Your task to perform on an android device: turn off data saver in the chrome app Image 0: 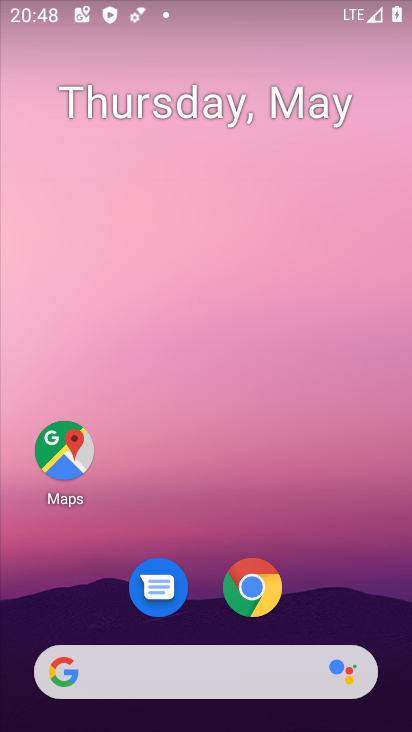
Step 0: click (244, 594)
Your task to perform on an android device: turn off data saver in the chrome app Image 1: 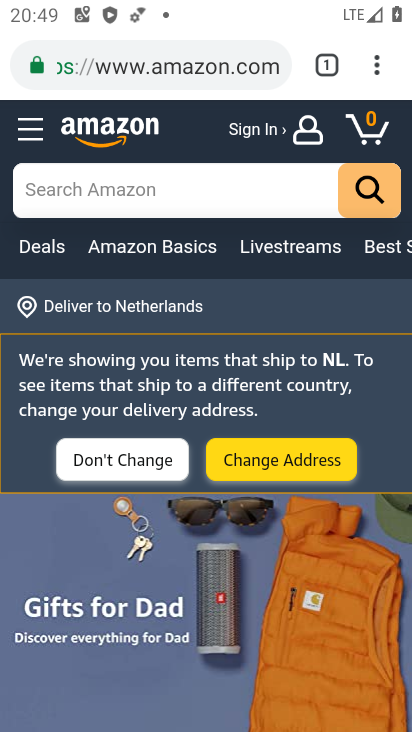
Step 1: click (339, 56)
Your task to perform on an android device: turn off data saver in the chrome app Image 2: 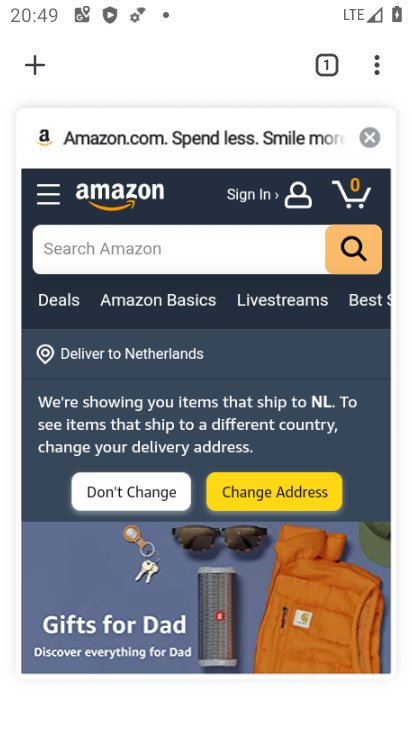
Step 2: click (371, 142)
Your task to perform on an android device: turn off data saver in the chrome app Image 3: 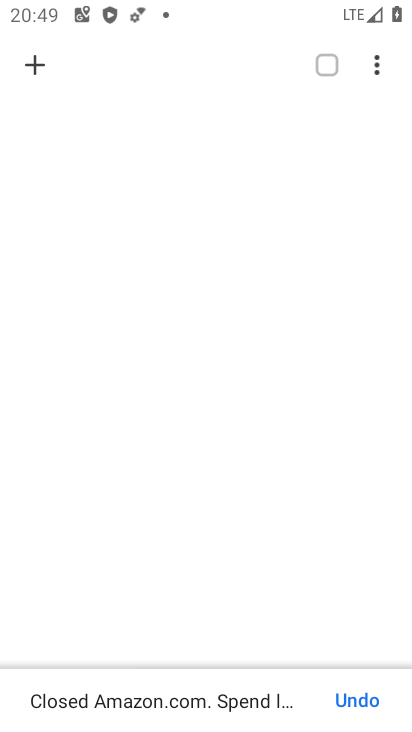
Step 3: click (379, 74)
Your task to perform on an android device: turn off data saver in the chrome app Image 4: 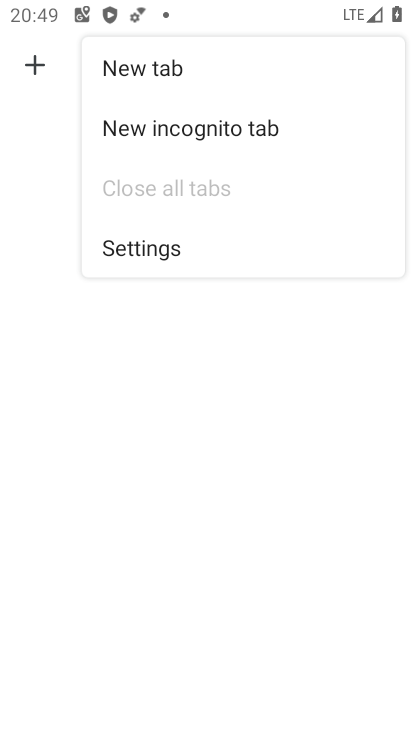
Step 4: click (150, 257)
Your task to perform on an android device: turn off data saver in the chrome app Image 5: 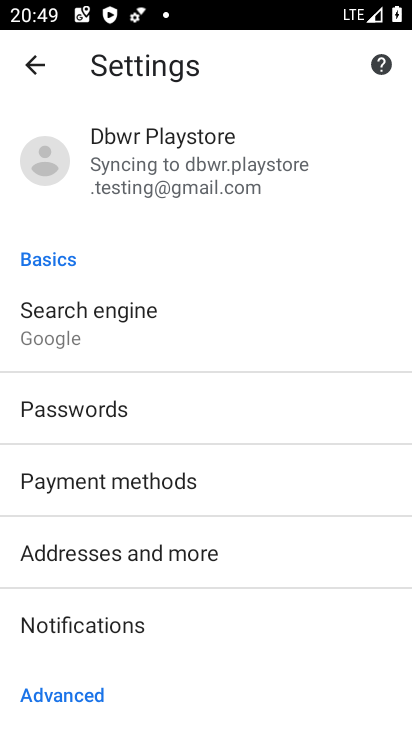
Step 5: drag from (159, 664) to (225, 210)
Your task to perform on an android device: turn off data saver in the chrome app Image 6: 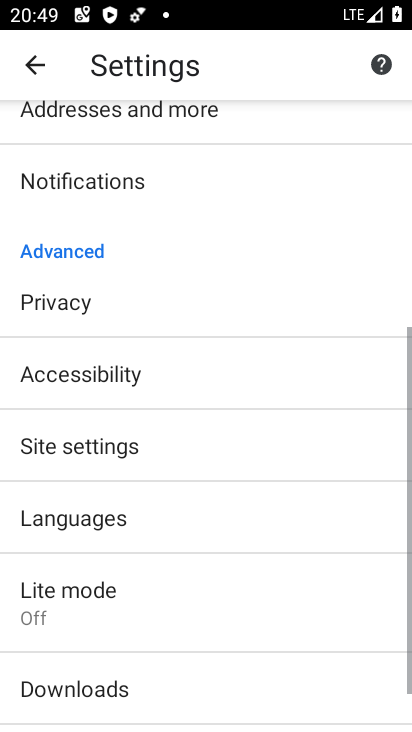
Step 6: click (55, 613)
Your task to perform on an android device: turn off data saver in the chrome app Image 7: 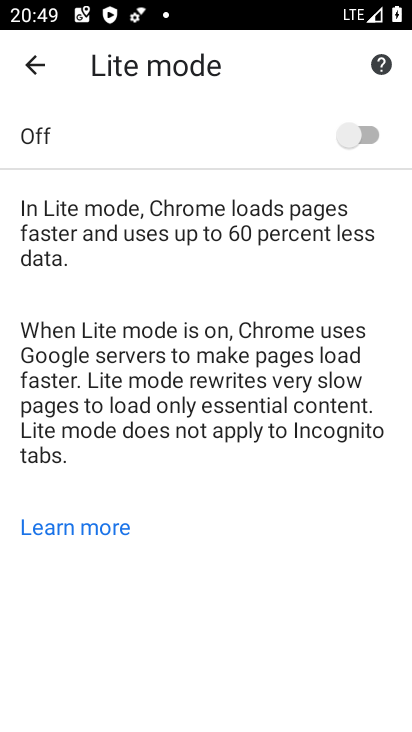
Step 7: task complete